Your task to perform on an android device: What's the weather going to be tomorrow? Image 0: 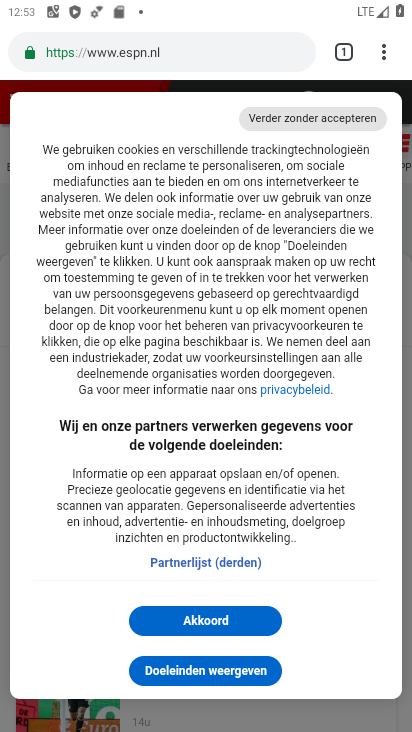
Step 0: press home button
Your task to perform on an android device: What's the weather going to be tomorrow? Image 1: 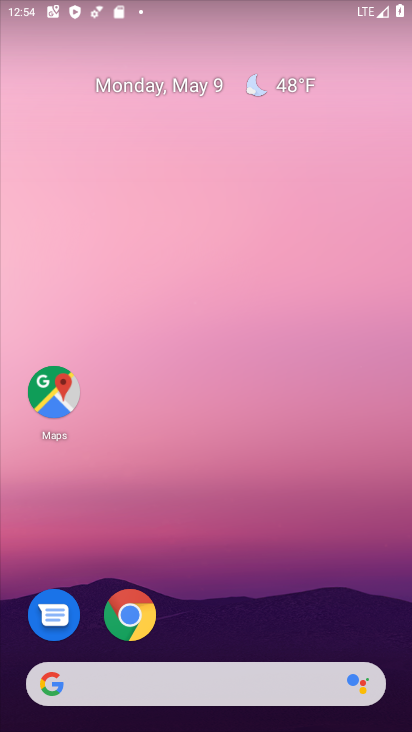
Step 1: drag from (12, 156) to (404, 230)
Your task to perform on an android device: What's the weather going to be tomorrow? Image 2: 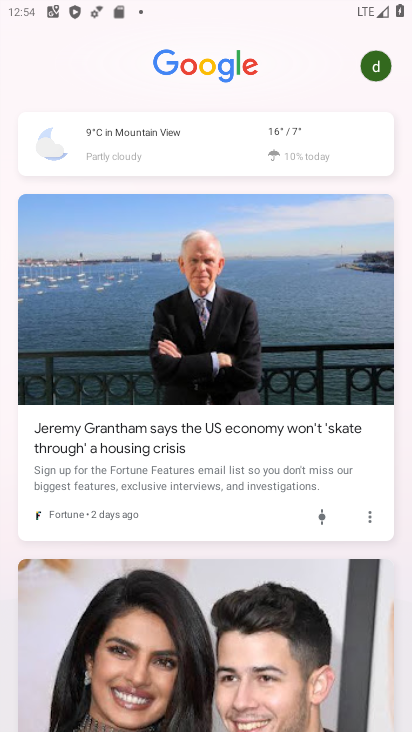
Step 2: click (292, 136)
Your task to perform on an android device: What's the weather going to be tomorrow? Image 3: 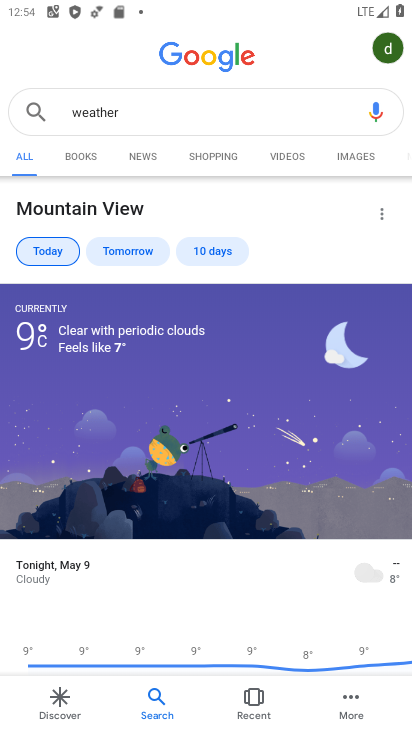
Step 3: click (135, 250)
Your task to perform on an android device: What's the weather going to be tomorrow? Image 4: 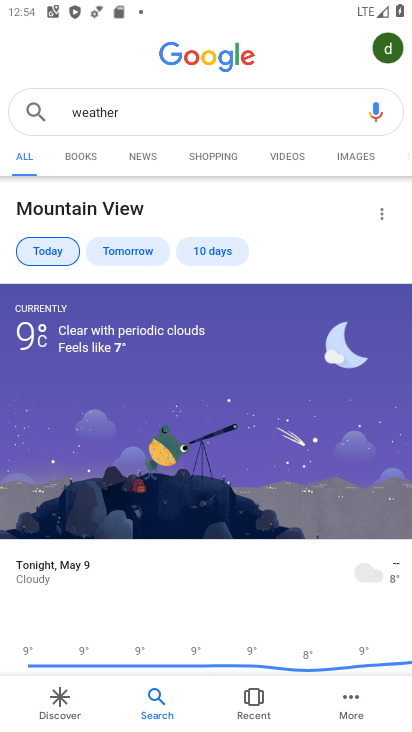
Step 4: click (114, 250)
Your task to perform on an android device: What's the weather going to be tomorrow? Image 5: 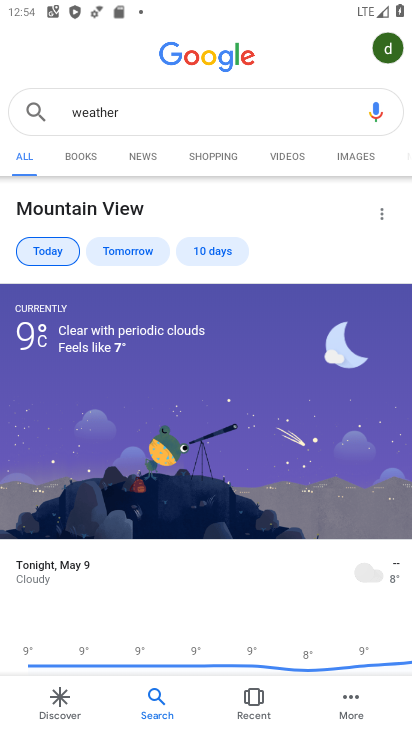
Step 5: click (114, 250)
Your task to perform on an android device: What's the weather going to be tomorrow? Image 6: 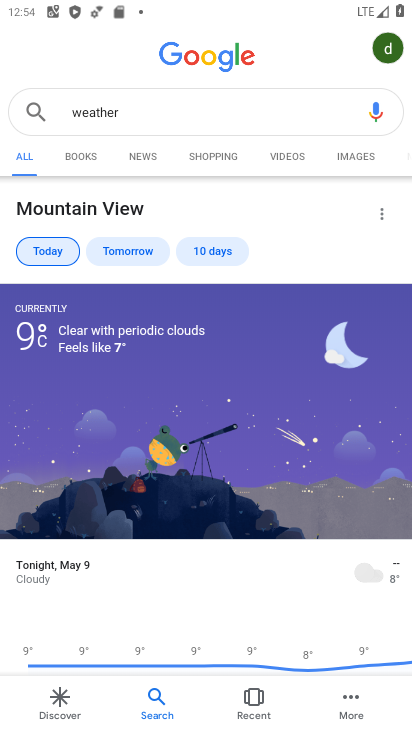
Step 6: task complete